Your task to perform on an android device: Go to wifi settings Image 0: 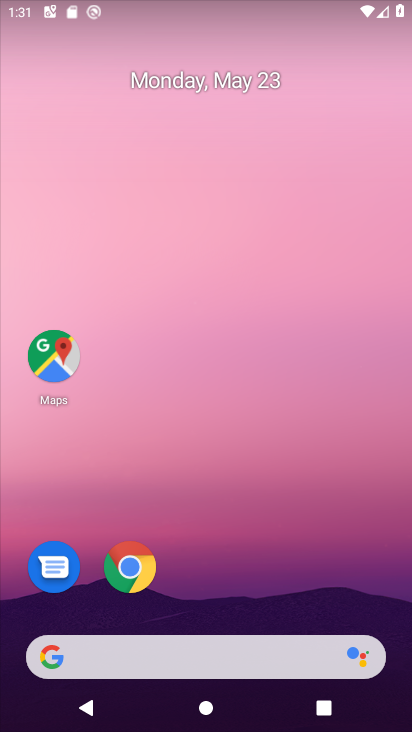
Step 0: drag from (290, 581) to (351, 140)
Your task to perform on an android device: Go to wifi settings Image 1: 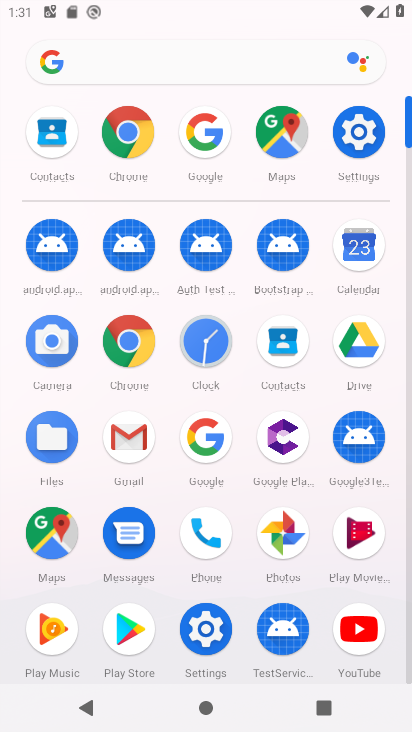
Step 1: click (339, 144)
Your task to perform on an android device: Go to wifi settings Image 2: 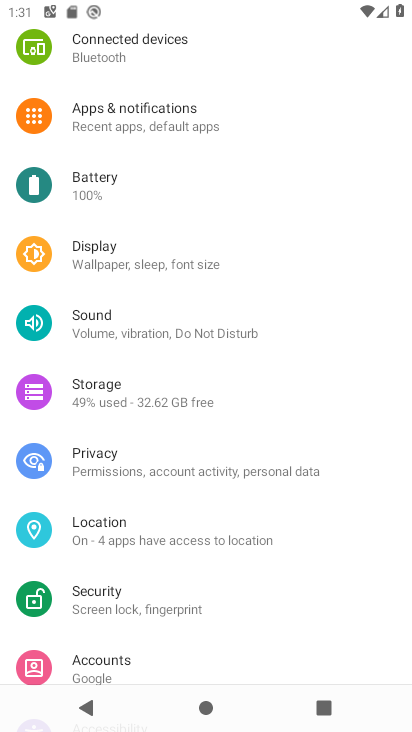
Step 2: drag from (203, 133) to (193, 462)
Your task to perform on an android device: Go to wifi settings Image 3: 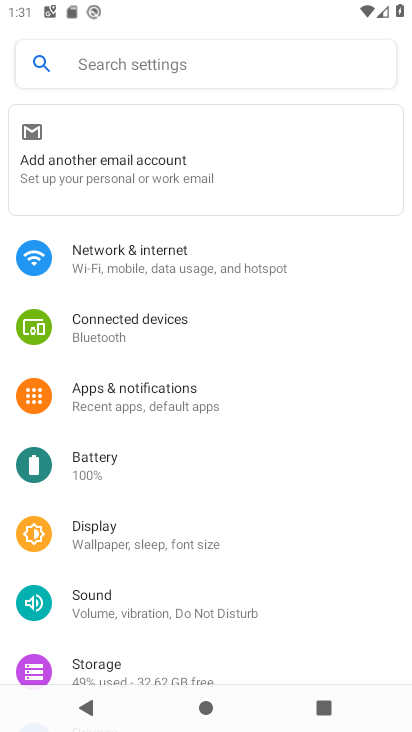
Step 3: click (168, 265)
Your task to perform on an android device: Go to wifi settings Image 4: 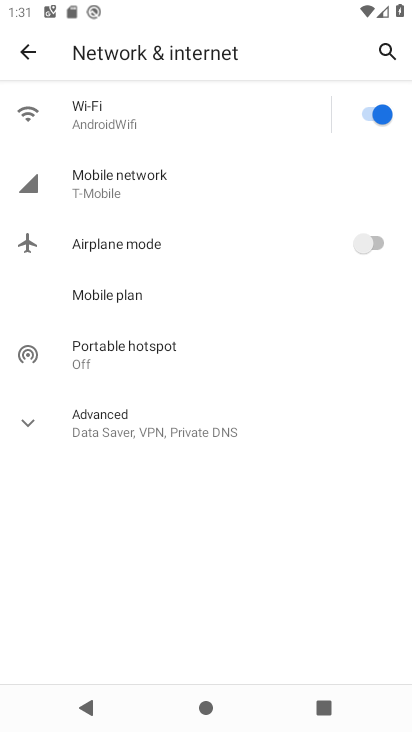
Step 4: click (133, 123)
Your task to perform on an android device: Go to wifi settings Image 5: 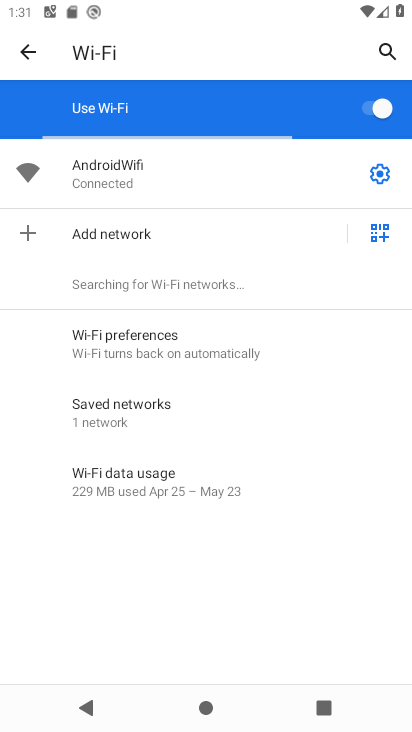
Step 5: task complete